Your task to perform on an android device: turn on location history Image 0: 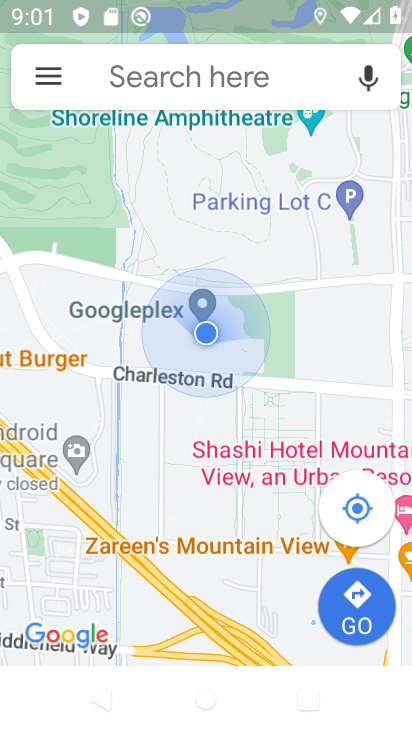
Step 0: click (62, 89)
Your task to perform on an android device: turn on location history Image 1: 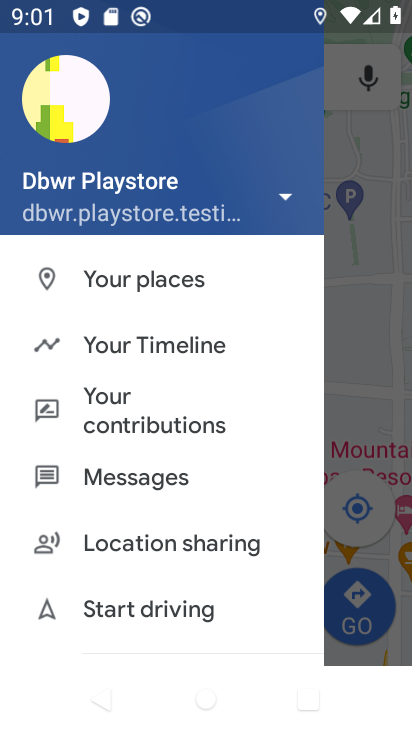
Step 1: click (193, 355)
Your task to perform on an android device: turn on location history Image 2: 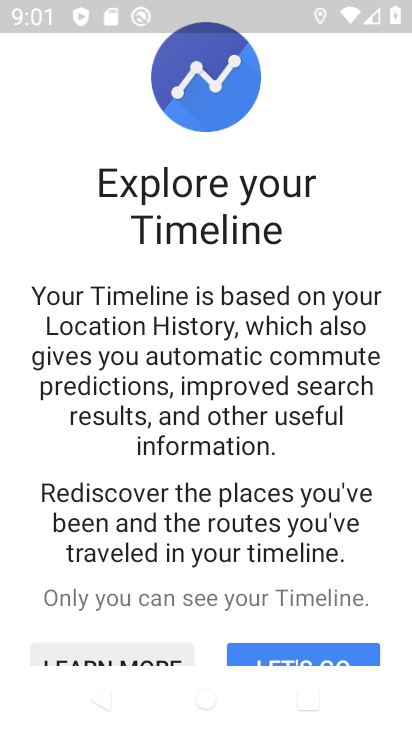
Step 2: drag from (332, 572) to (271, 136)
Your task to perform on an android device: turn on location history Image 3: 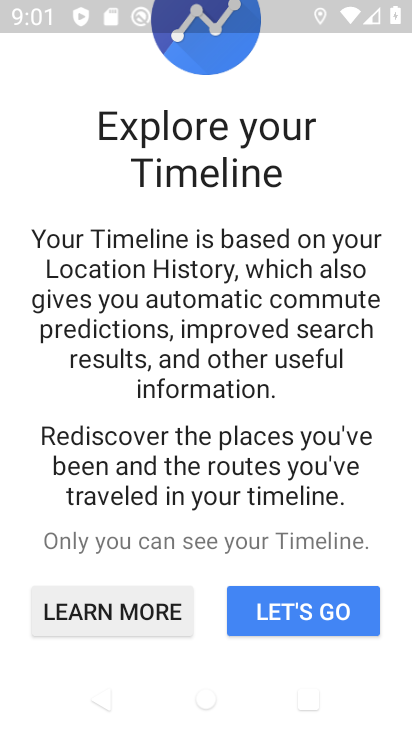
Step 3: click (343, 623)
Your task to perform on an android device: turn on location history Image 4: 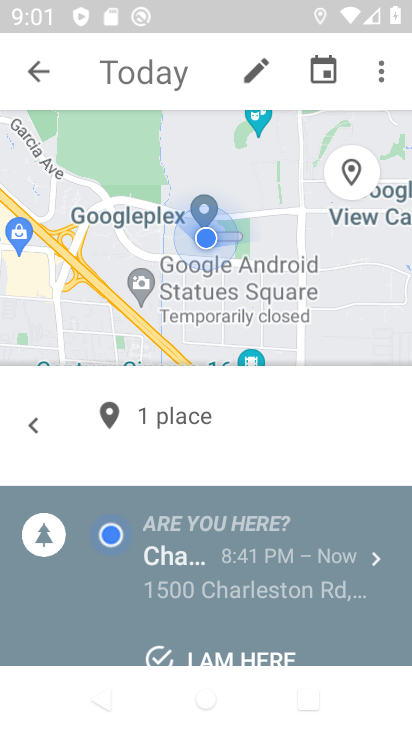
Step 4: click (374, 91)
Your task to perform on an android device: turn on location history Image 5: 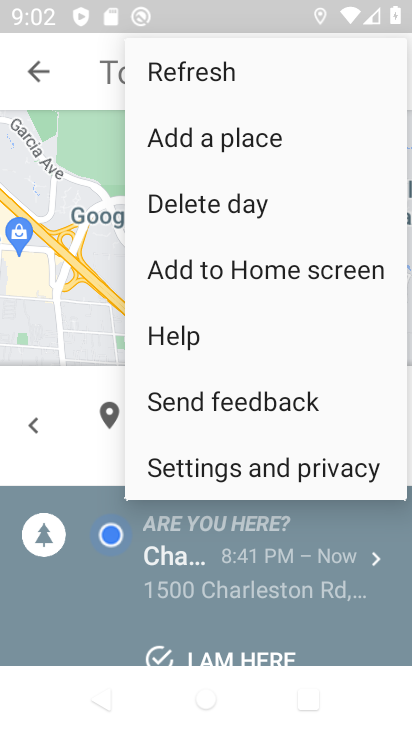
Step 5: click (286, 470)
Your task to perform on an android device: turn on location history Image 6: 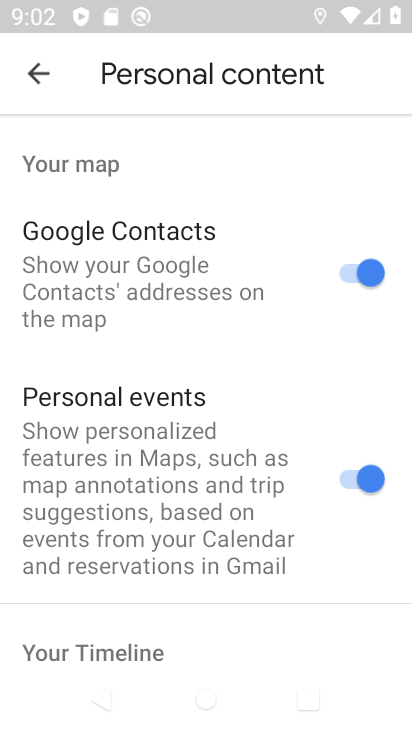
Step 6: drag from (253, 619) to (267, 97)
Your task to perform on an android device: turn on location history Image 7: 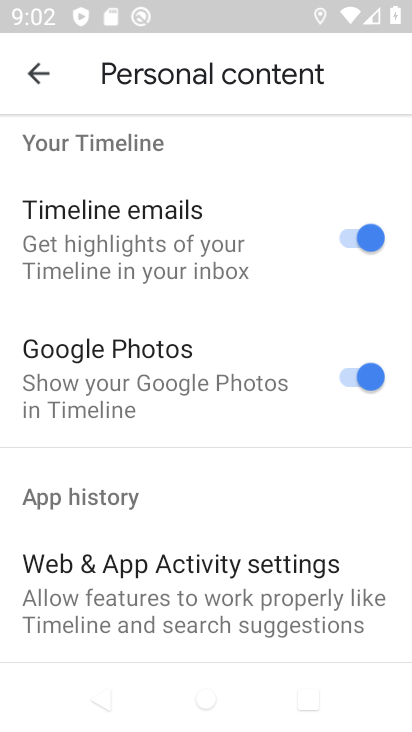
Step 7: drag from (210, 601) to (190, 179)
Your task to perform on an android device: turn on location history Image 8: 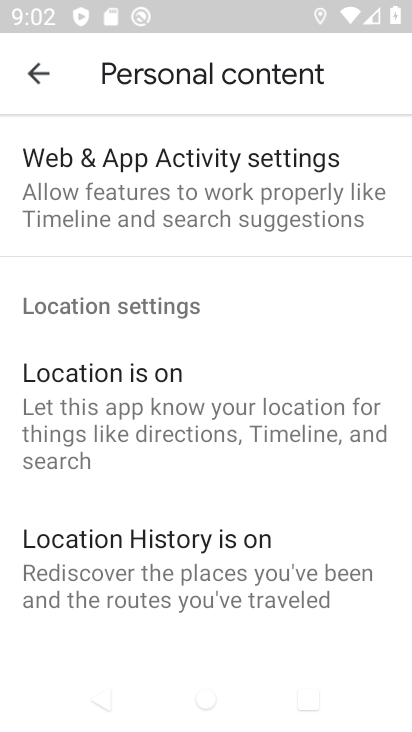
Step 8: click (237, 577)
Your task to perform on an android device: turn on location history Image 9: 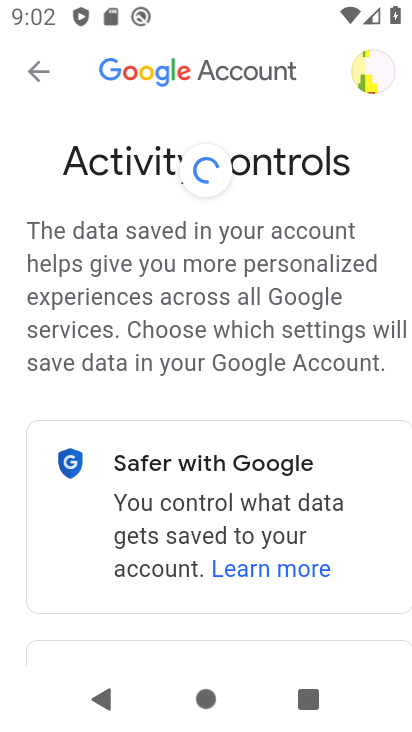
Step 9: task complete